Your task to perform on an android device: Add apple airpods pro to the cart on walmart Image 0: 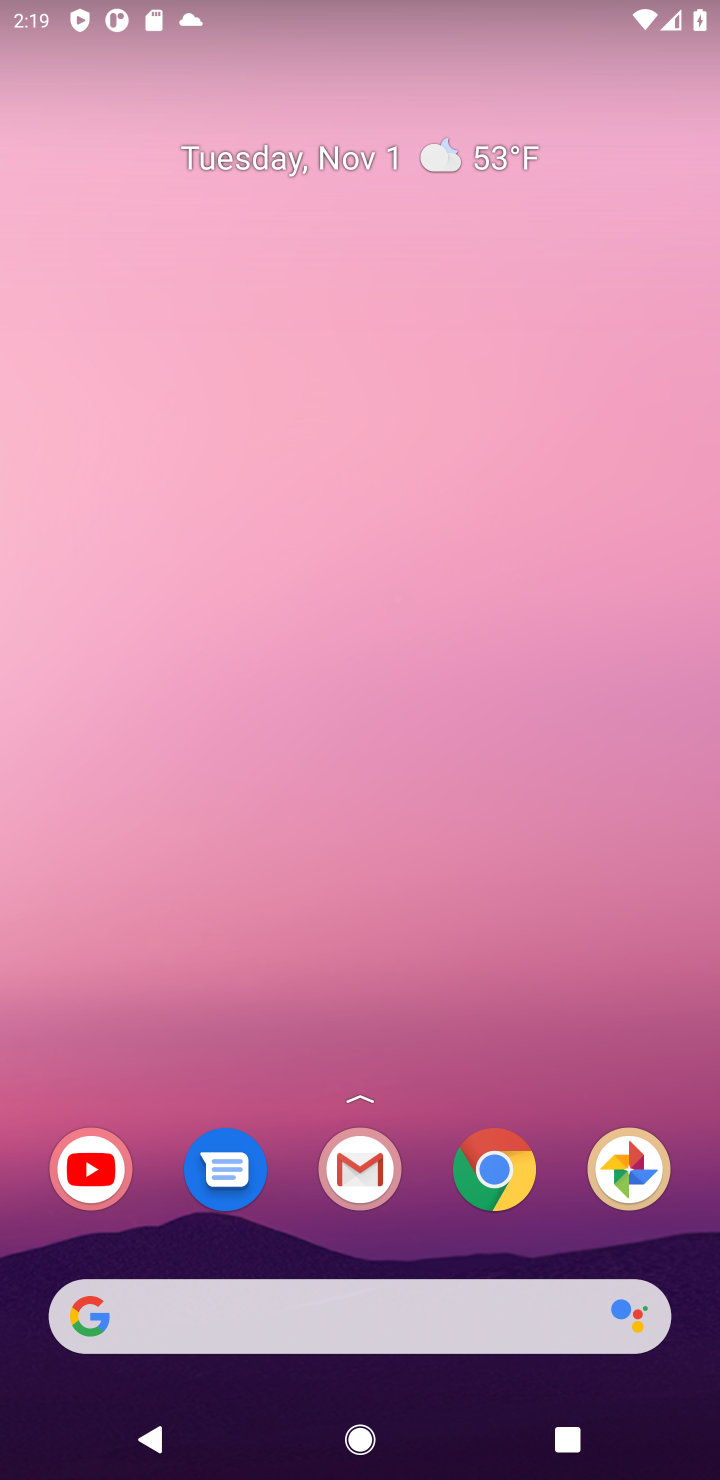
Step 0: click (496, 1154)
Your task to perform on an android device: Add apple airpods pro to the cart on walmart Image 1: 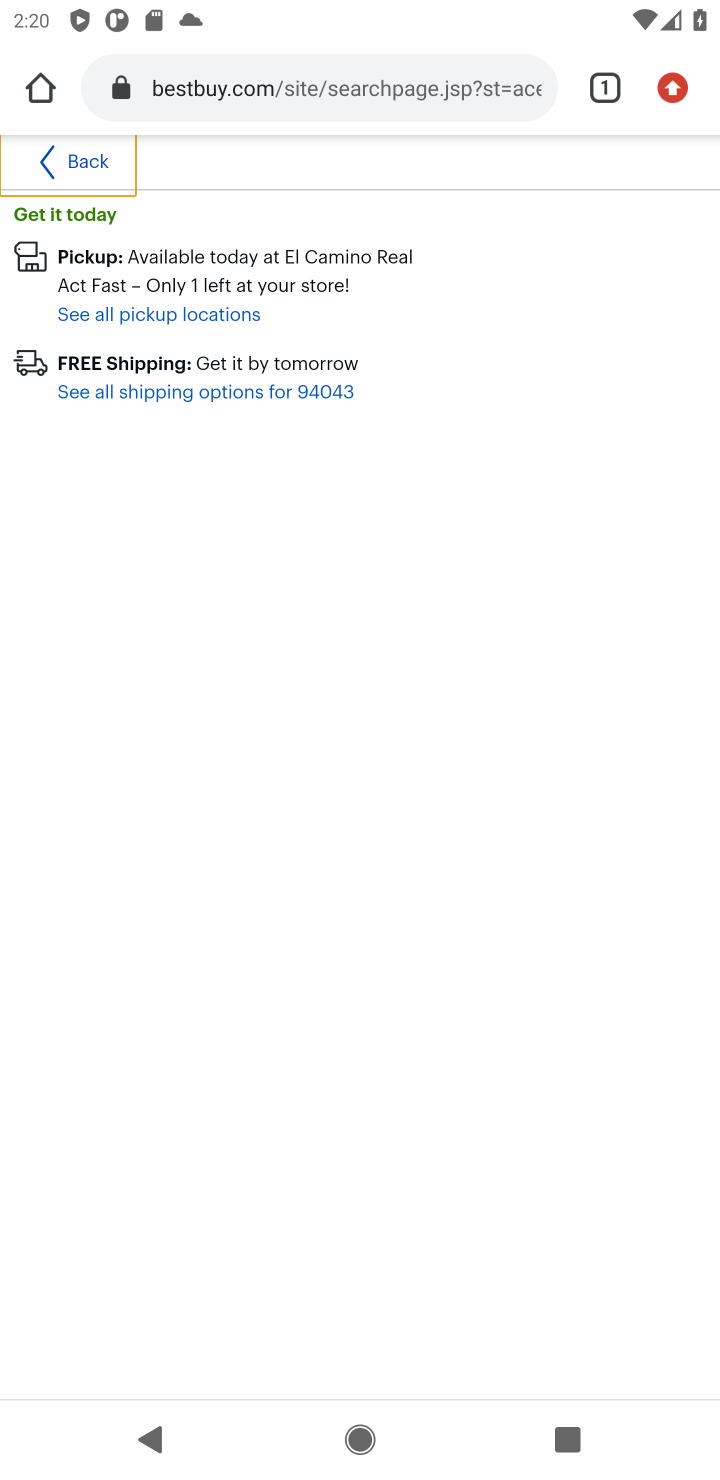
Step 1: click (439, 90)
Your task to perform on an android device: Add apple airpods pro to the cart on walmart Image 2: 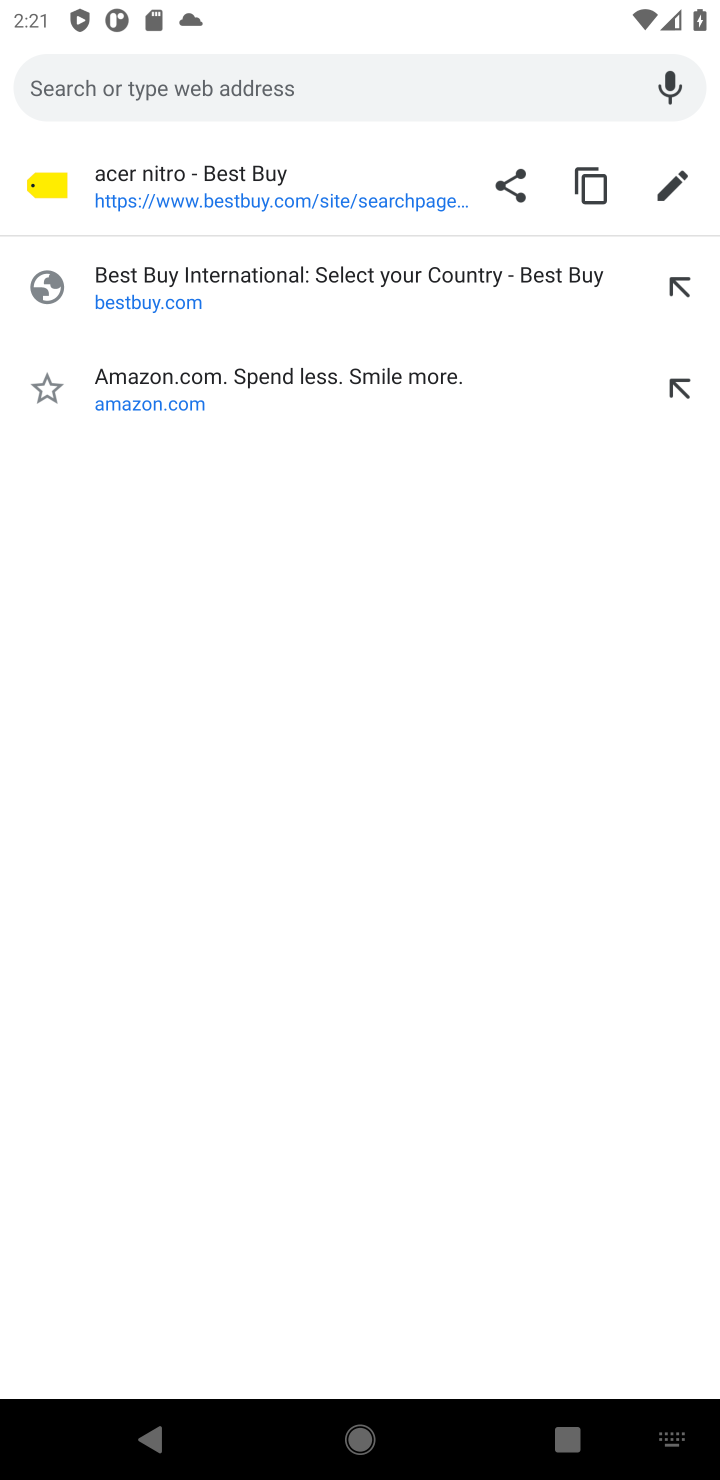
Step 2: type "walmart"
Your task to perform on an android device: Add apple airpods pro to the cart on walmart Image 3: 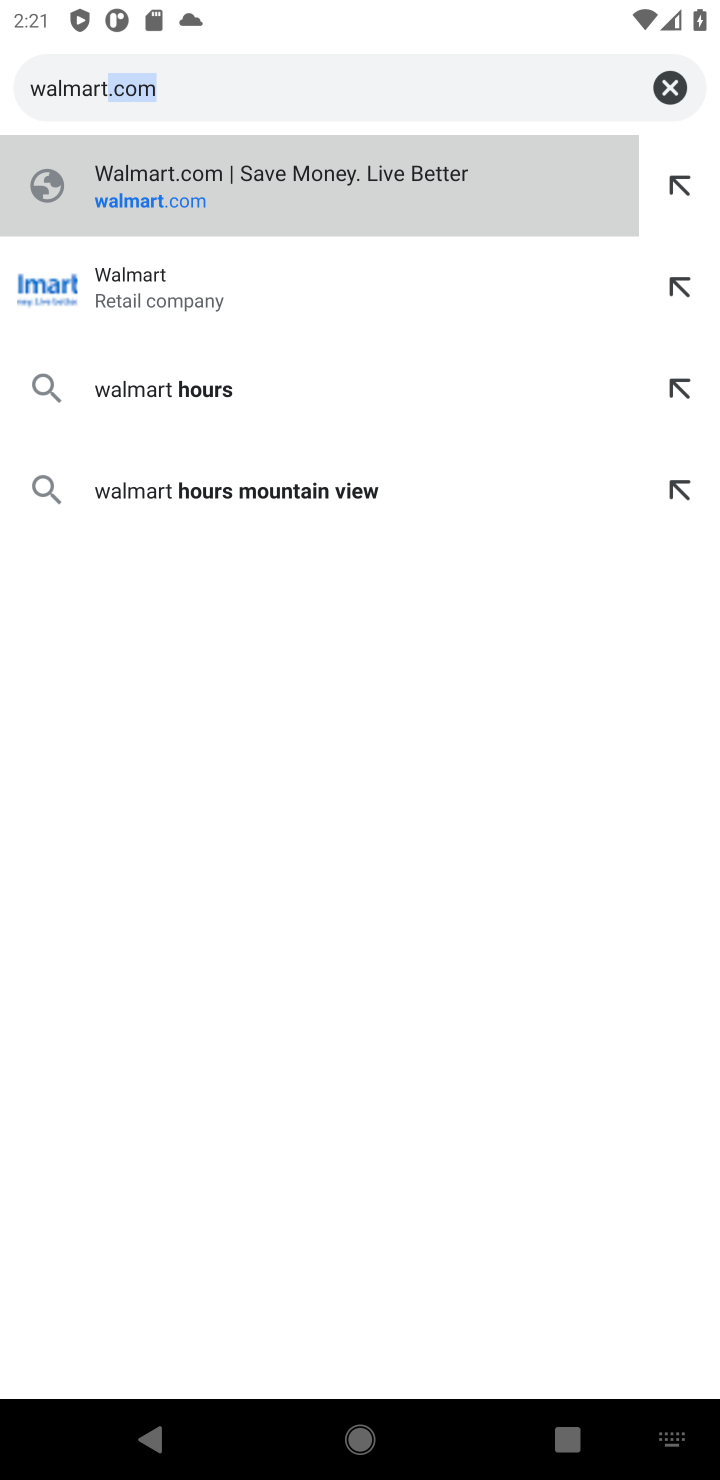
Step 3: click (107, 298)
Your task to perform on an android device: Add apple airpods pro to the cart on walmart Image 4: 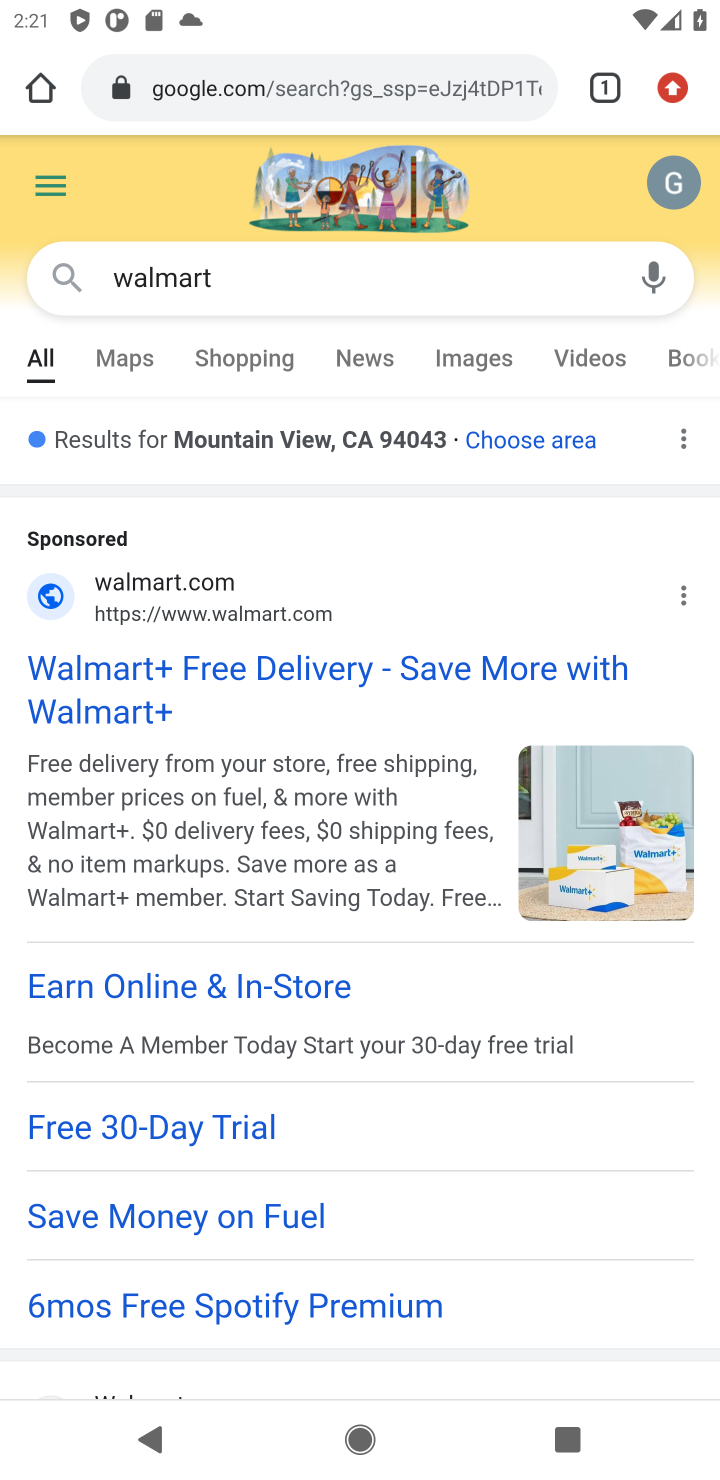
Step 4: click (94, 669)
Your task to perform on an android device: Add apple airpods pro to the cart on walmart Image 5: 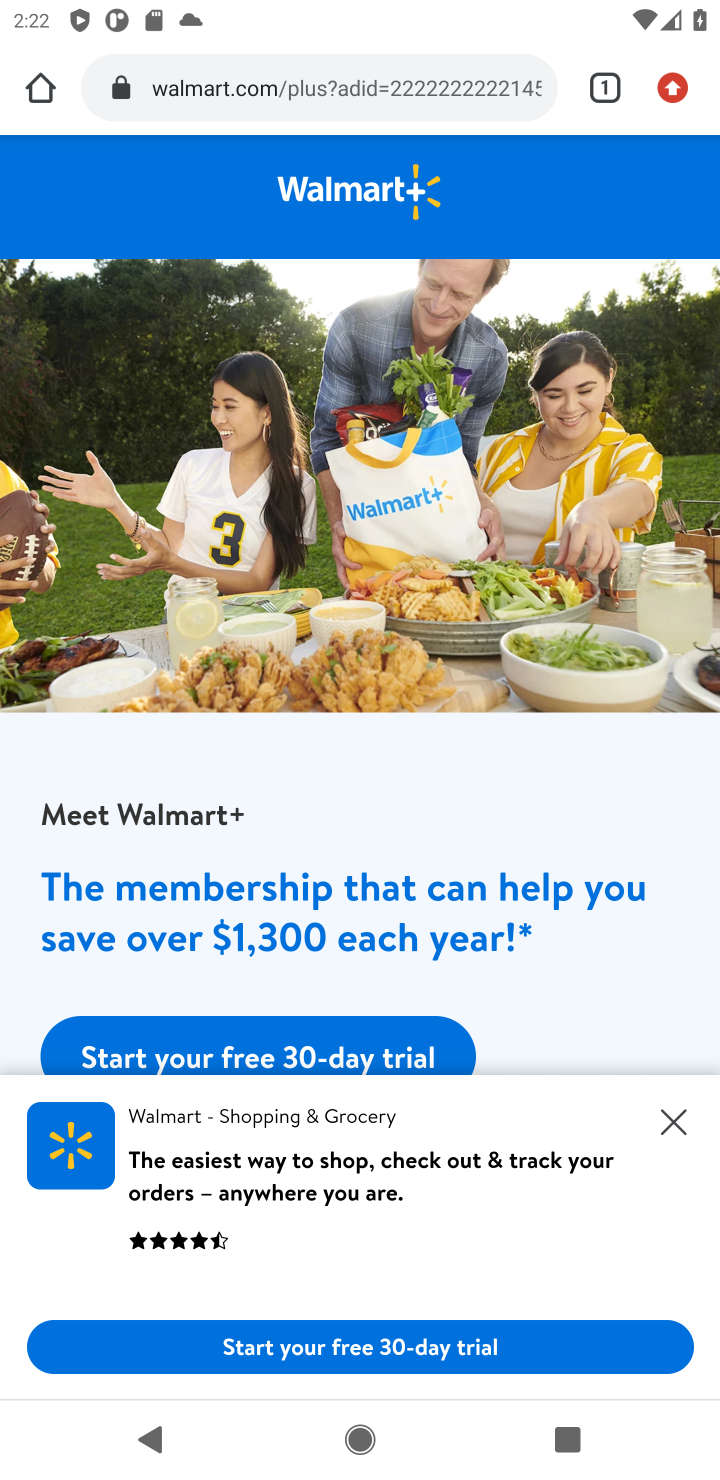
Step 5: click (679, 1113)
Your task to perform on an android device: Add apple airpods pro to the cart on walmart Image 6: 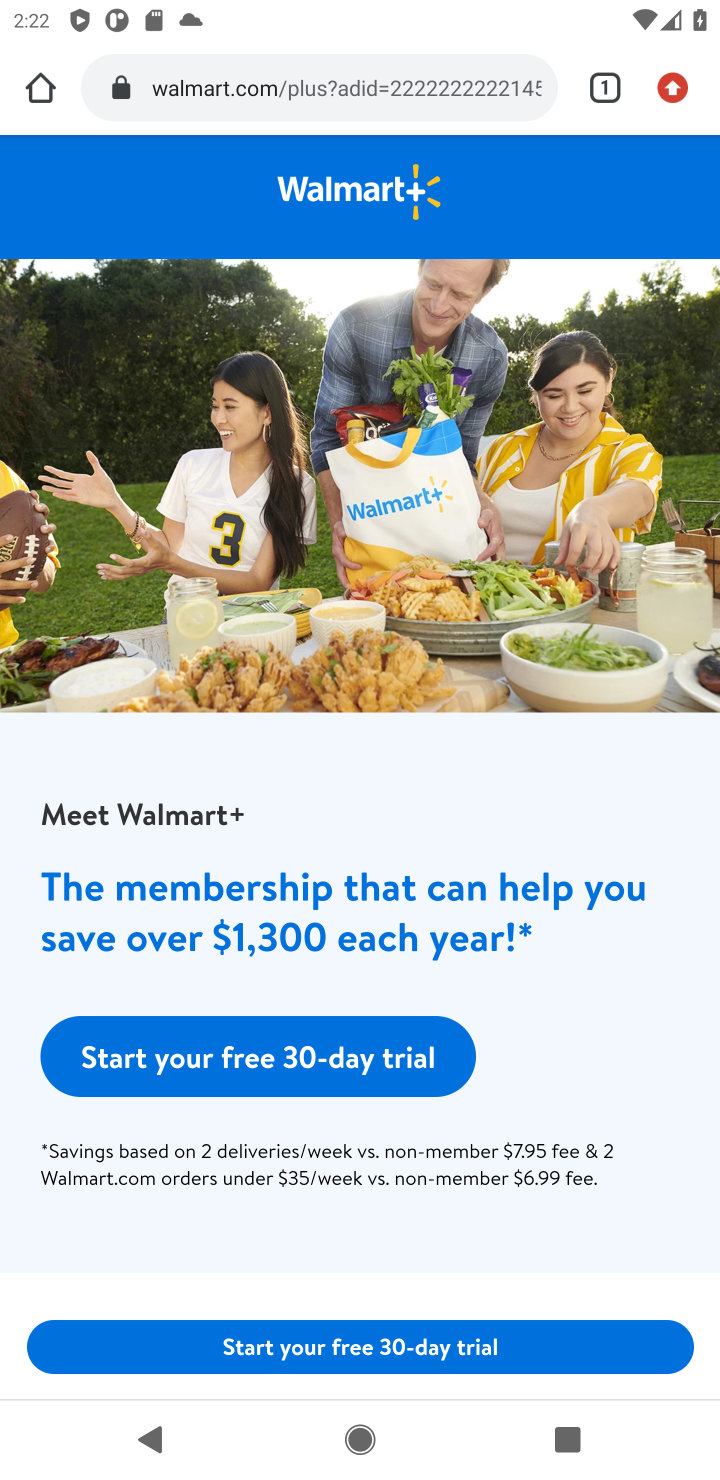
Step 6: press back button
Your task to perform on an android device: Add apple airpods pro to the cart on walmart Image 7: 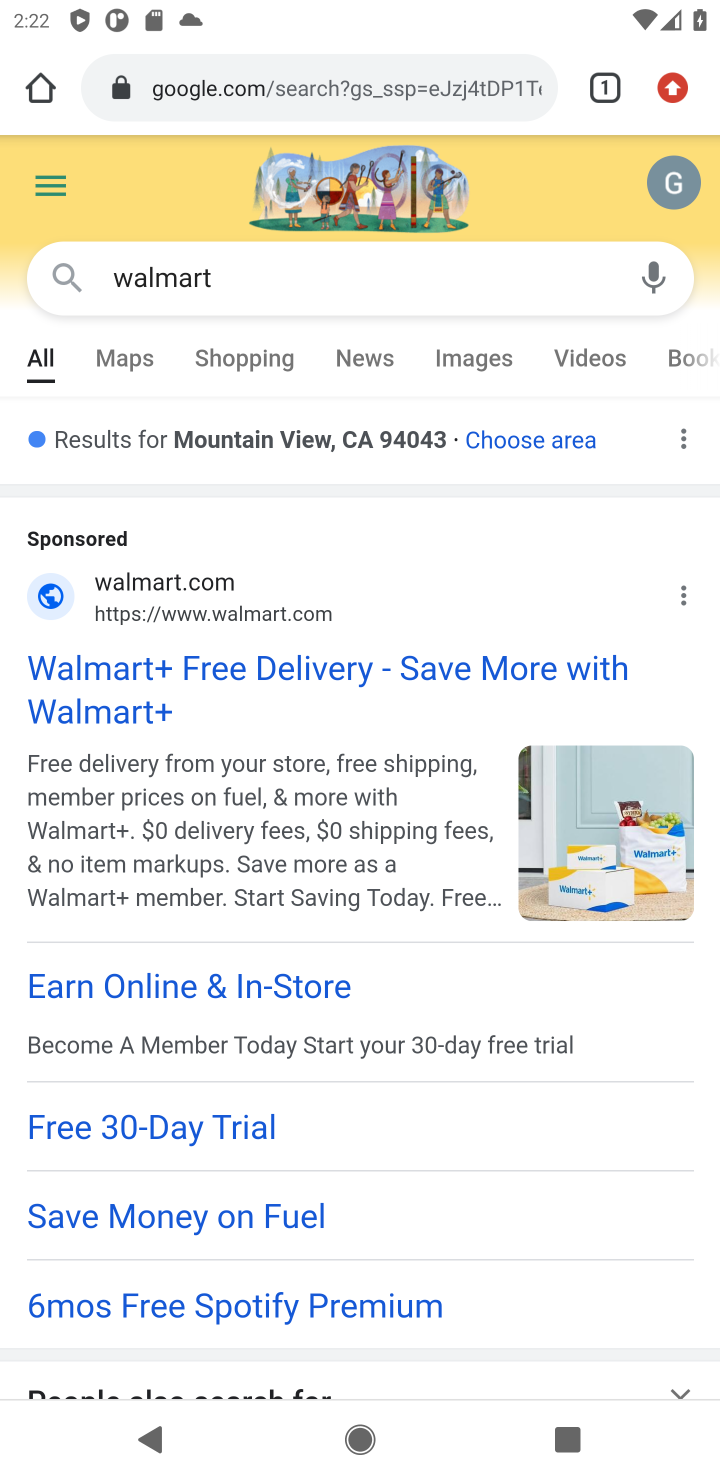
Step 7: drag from (315, 877) to (389, 47)
Your task to perform on an android device: Add apple airpods pro to the cart on walmart Image 8: 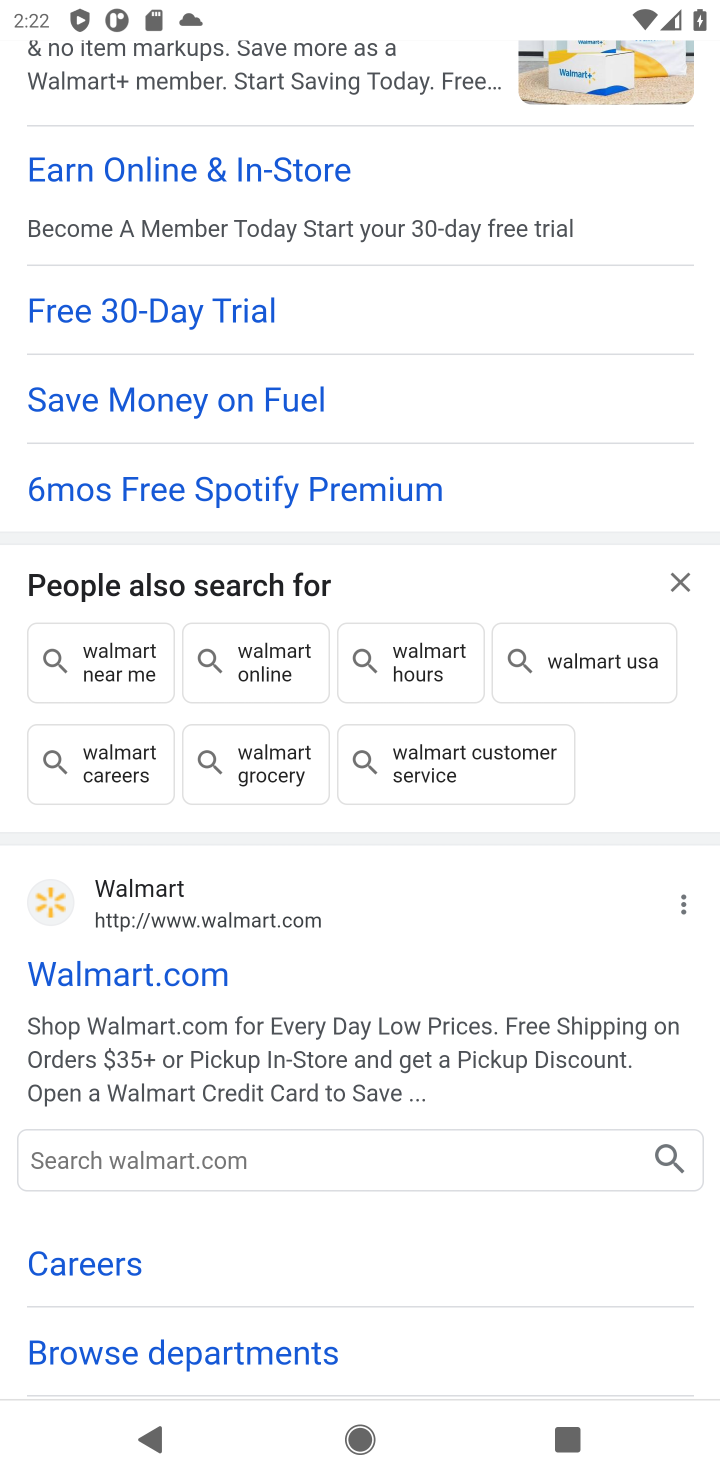
Step 8: click (89, 977)
Your task to perform on an android device: Add apple airpods pro to the cart on walmart Image 9: 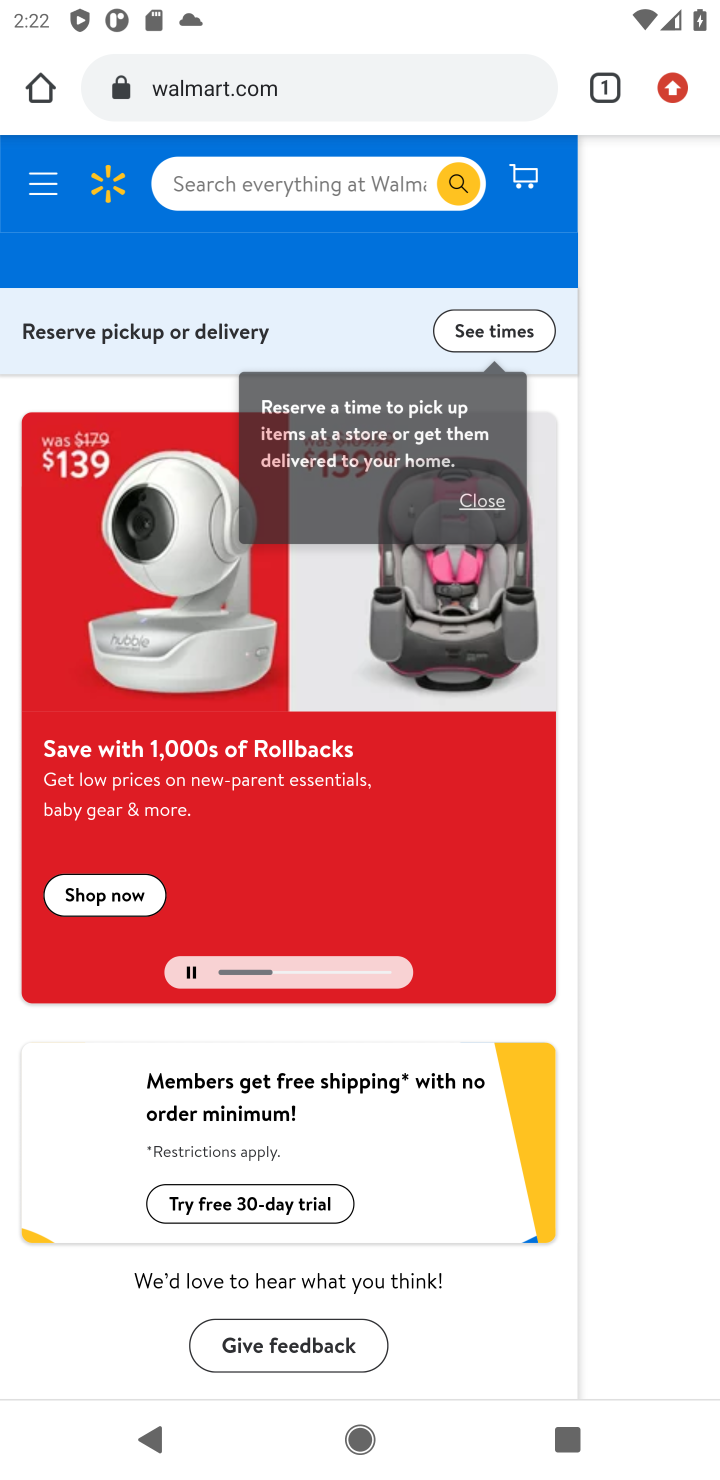
Step 9: click (288, 184)
Your task to perform on an android device: Add apple airpods pro to the cart on walmart Image 10: 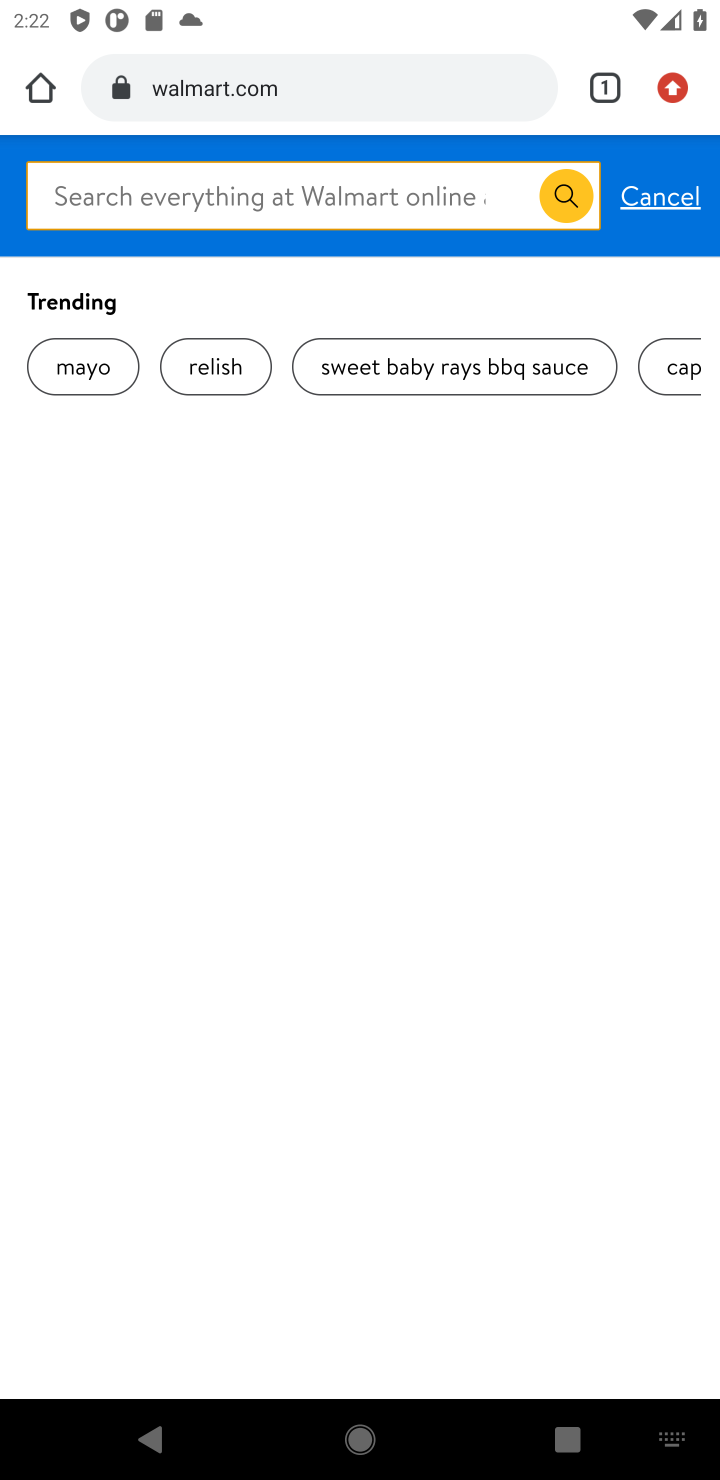
Step 10: type "apple airpods pro"
Your task to perform on an android device: Add apple airpods pro to the cart on walmart Image 11: 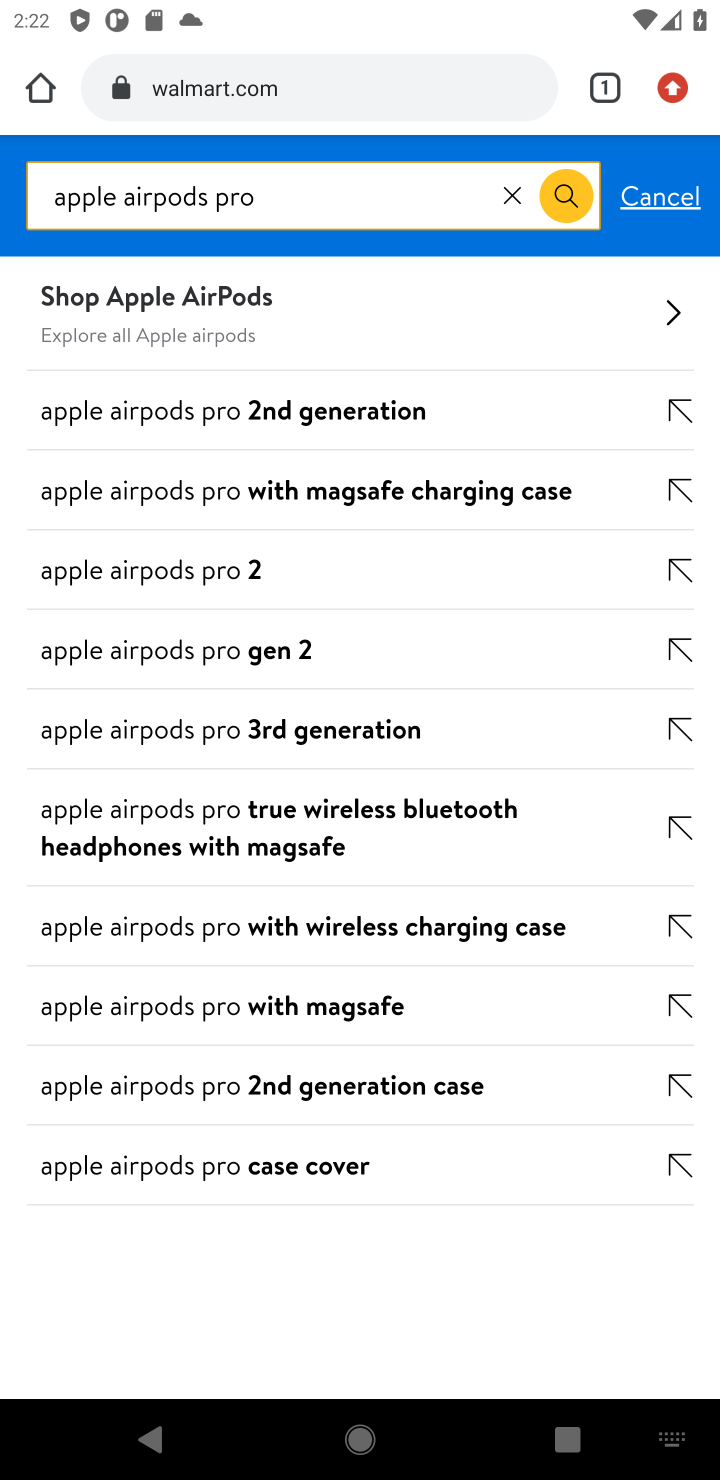
Step 11: click (560, 189)
Your task to perform on an android device: Add apple airpods pro to the cart on walmart Image 12: 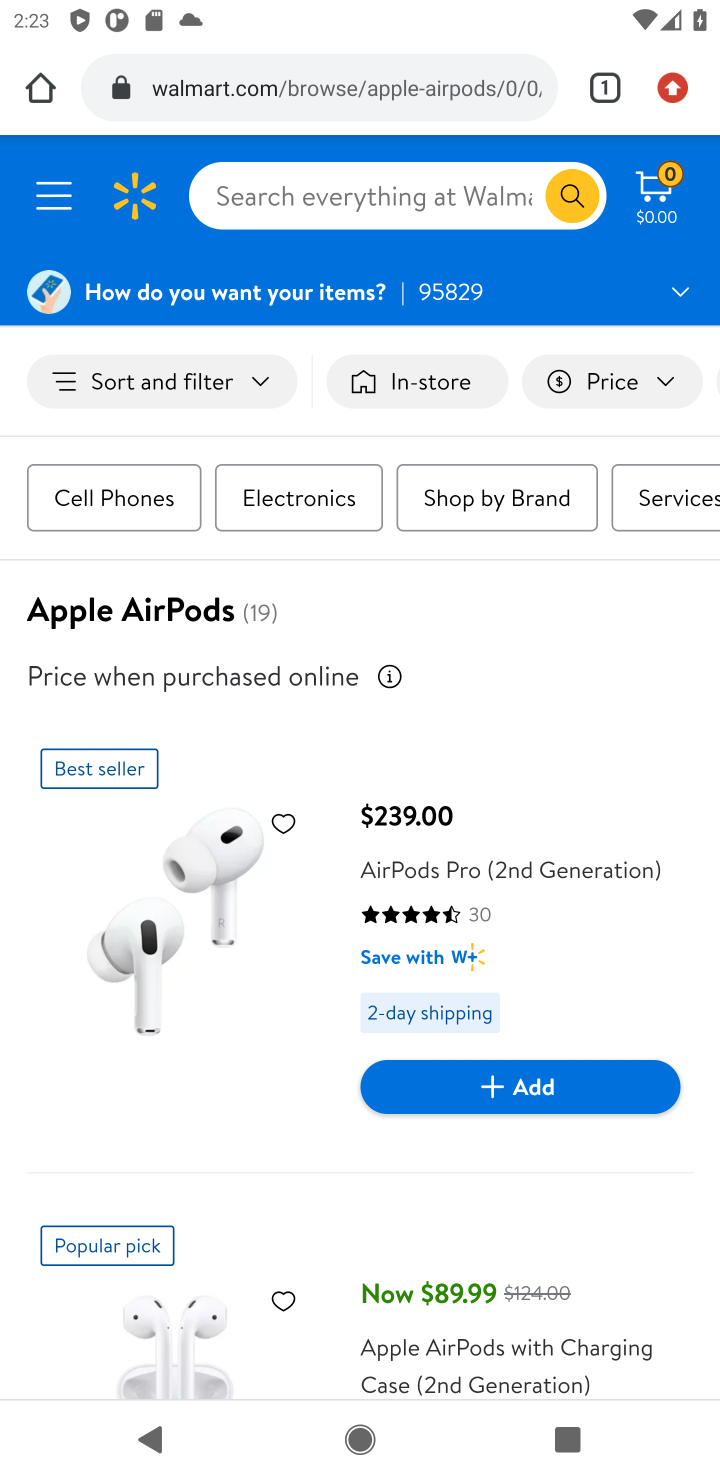
Step 12: click (528, 1100)
Your task to perform on an android device: Add apple airpods pro to the cart on walmart Image 13: 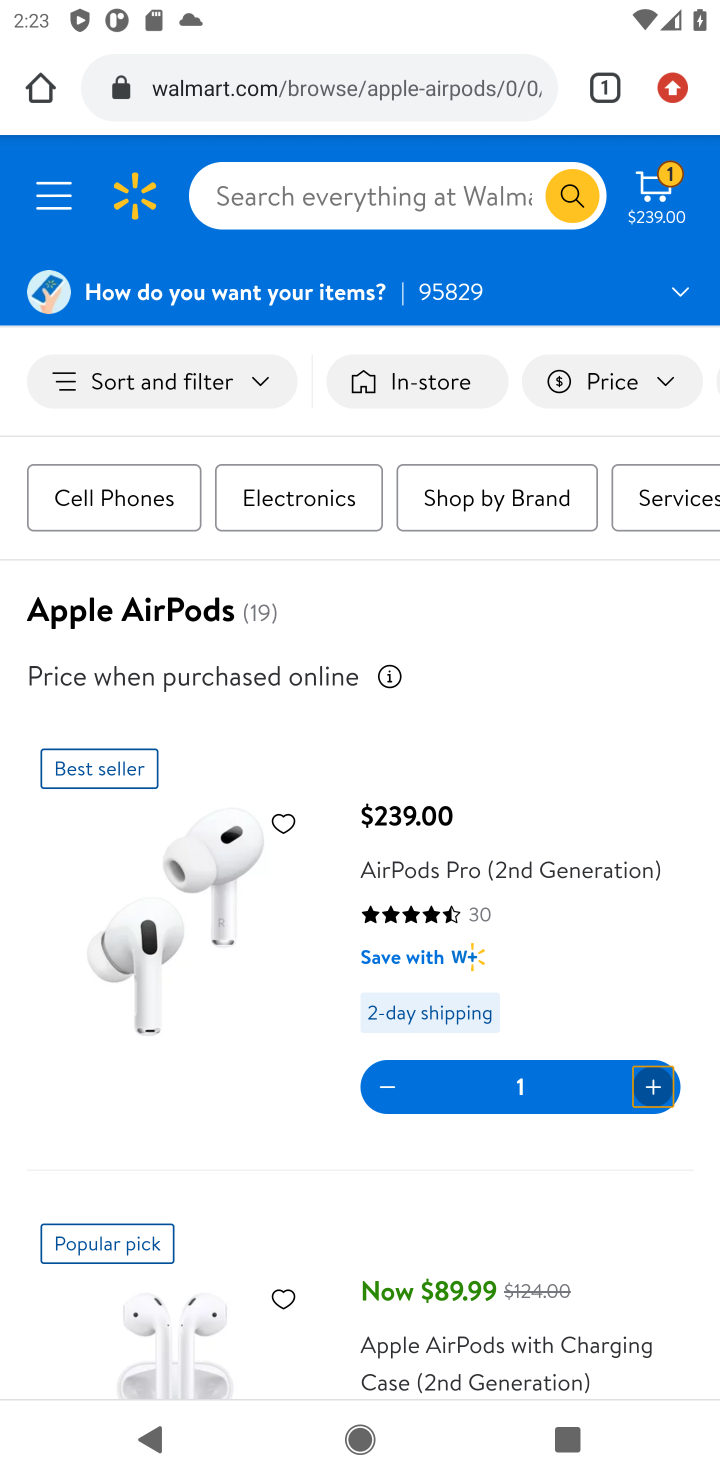
Step 13: task complete